Your task to perform on an android device: Is it going to rain tomorrow? Image 0: 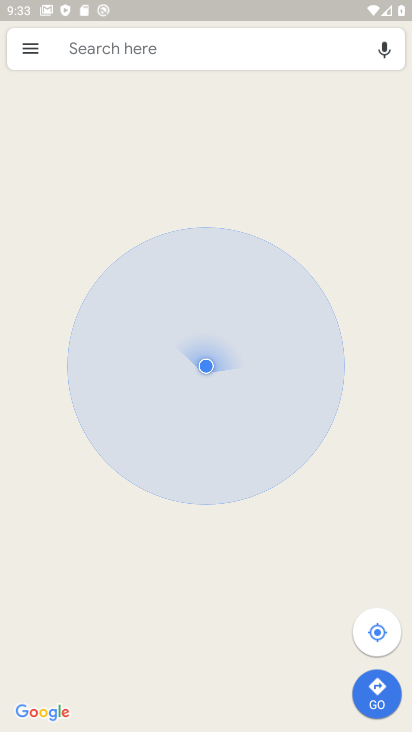
Step 0: press home button
Your task to perform on an android device: Is it going to rain tomorrow? Image 1: 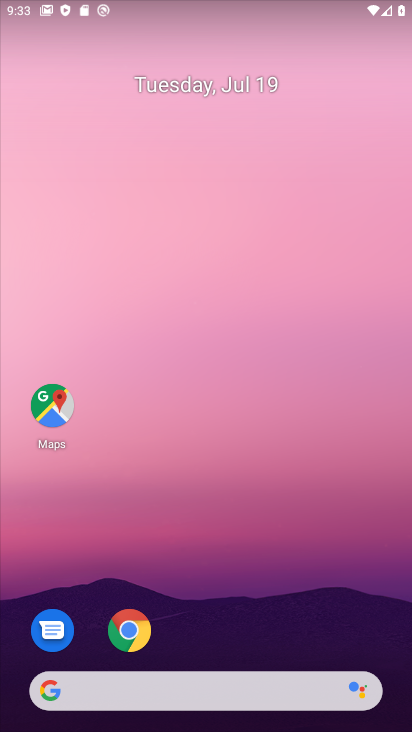
Step 1: click (199, 685)
Your task to perform on an android device: Is it going to rain tomorrow? Image 2: 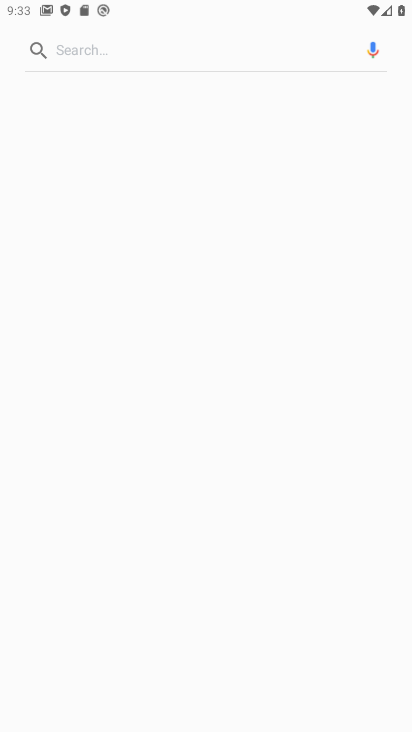
Step 2: click (119, 53)
Your task to perform on an android device: Is it going to rain tomorrow? Image 3: 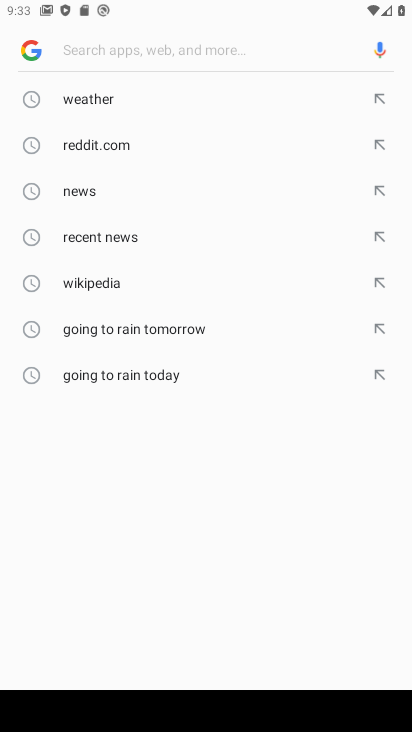
Step 3: type "wea"
Your task to perform on an android device: Is it going to rain tomorrow? Image 4: 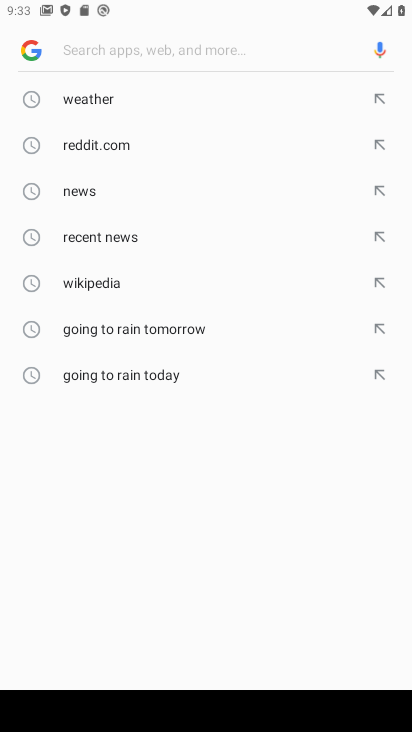
Step 4: click (157, 90)
Your task to perform on an android device: Is it going to rain tomorrow? Image 5: 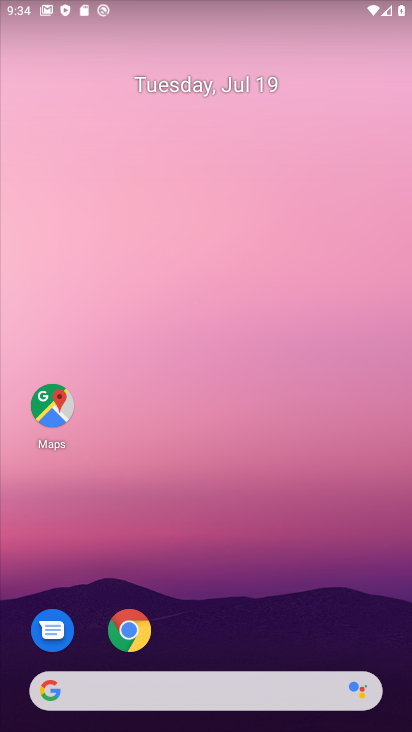
Step 5: click (223, 688)
Your task to perform on an android device: Is it going to rain tomorrow? Image 6: 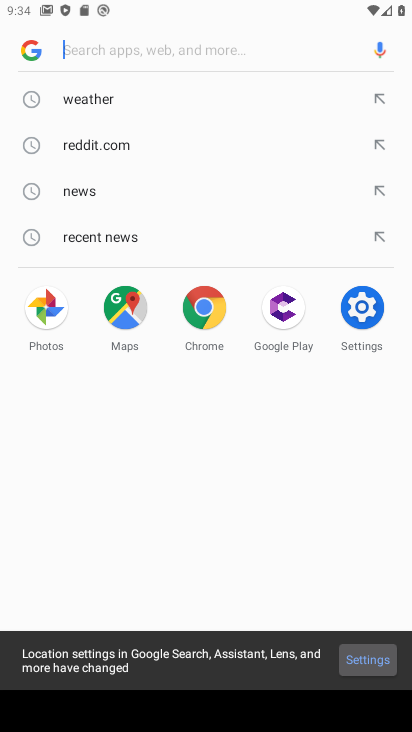
Step 6: click (64, 96)
Your task to perform on an android device: Is it going to rain tomorrow? Image 7: 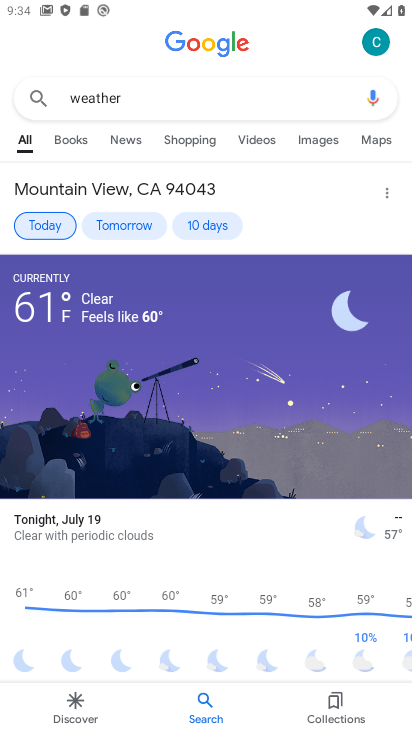
Step 7: click (129, 222)
Your task to perform on an android device: Is it going to rain tomorrow? Image 8: 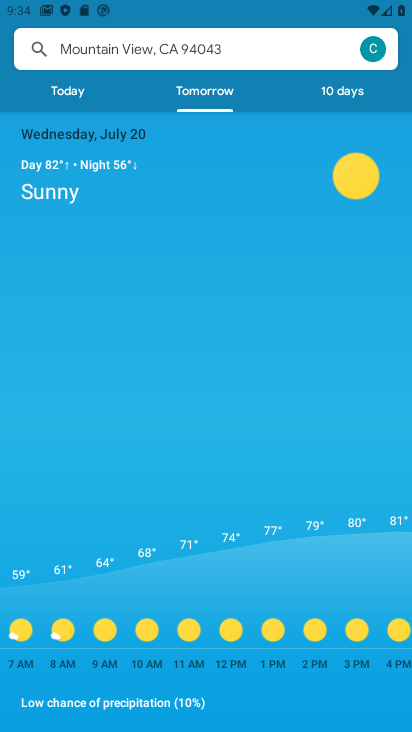
Step 8: task complete